Your task to perform on an android device: Go to privacy settings Image 0: 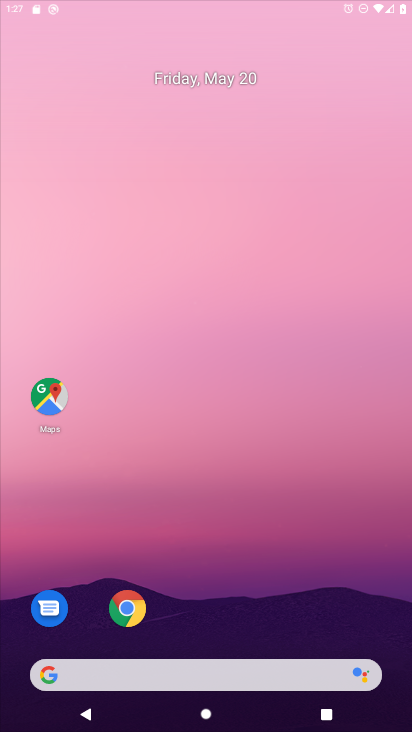
Step 0: press home button
Your task to perform on an android device: Go to privacy settings Image 1: 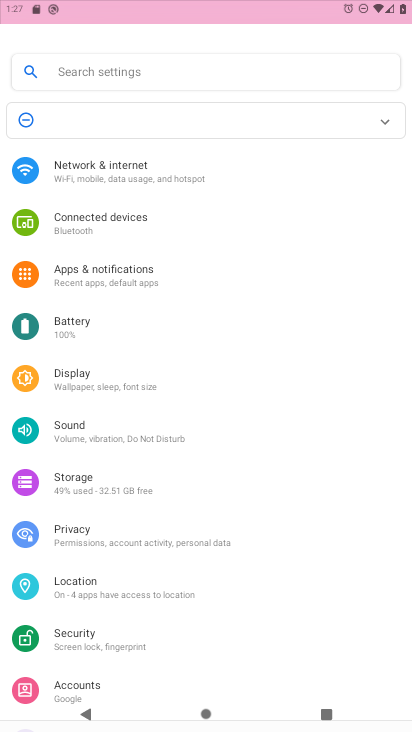
Step 1: drag from (258, 591) to (282, 88)
Your task to perform on an android device: Go to privacy settings Image 2: 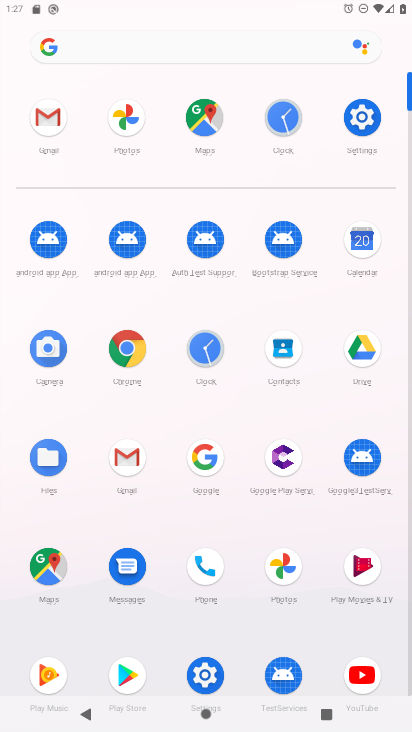
Step 2: click (342, 122)
Your task to perform on an android device: Go to privacy settings Image 3: 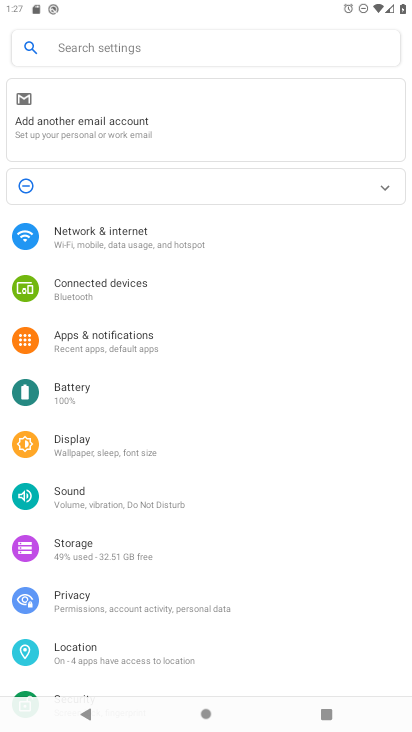
Step 3: click (87, 583)
Your task to perform on an android device: Go to privacy settings Image 4: 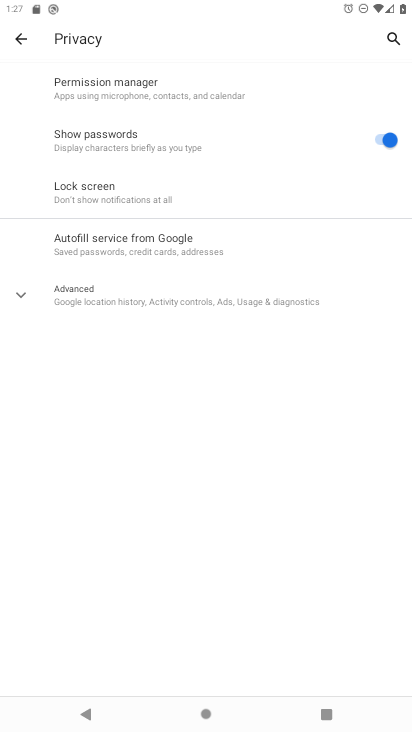
Step 4: task complete